Your task to perform on an android device: Is it going to rain tomorrow? Image 0: 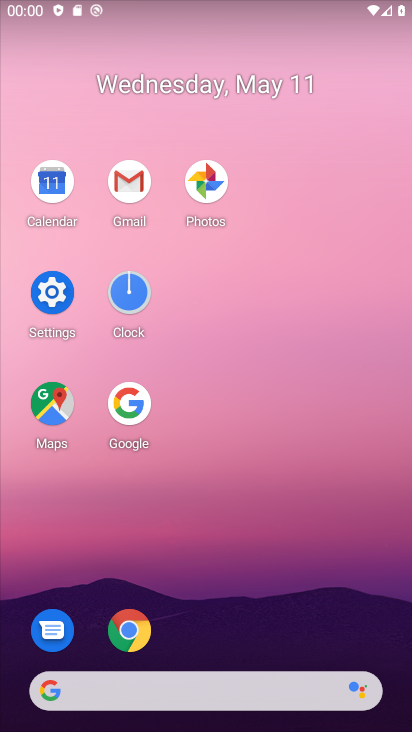
Step 0: click (126, 414)
Your task to perform on an android device: Is it going to rain tomorrow? Image 1: 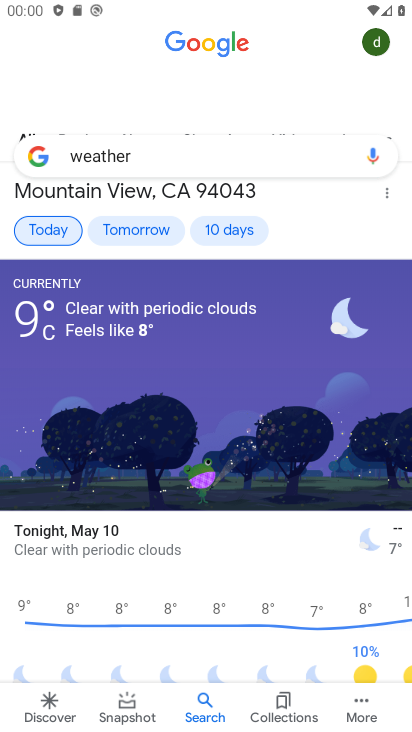
Step 1: click (161, 231)
Your task to perform on an android device: Is it going to rain tomorrow? Image 2: 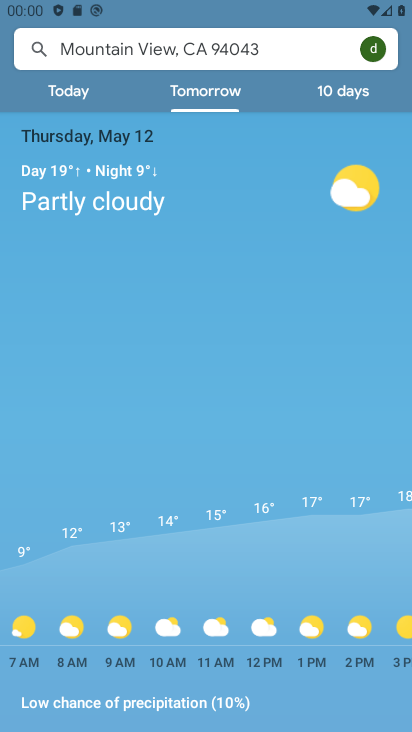
Step 2: task complete